Your task to perform on an android device: toggle data saver in the chrome app Image 0: 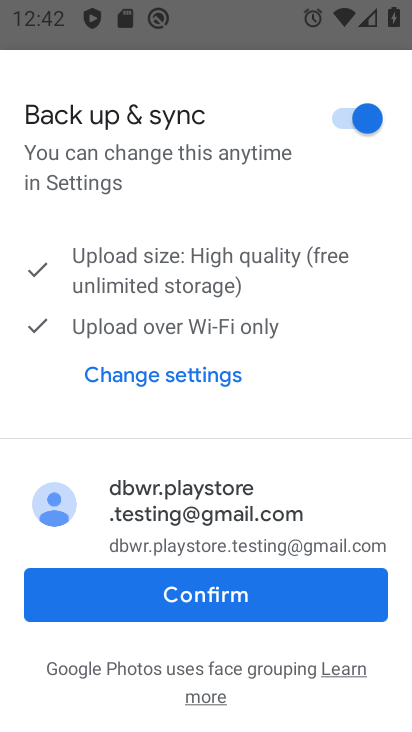
Step 0: press back button
Your task to perform on an android device: toggle data saver in the chrome app Image 1: 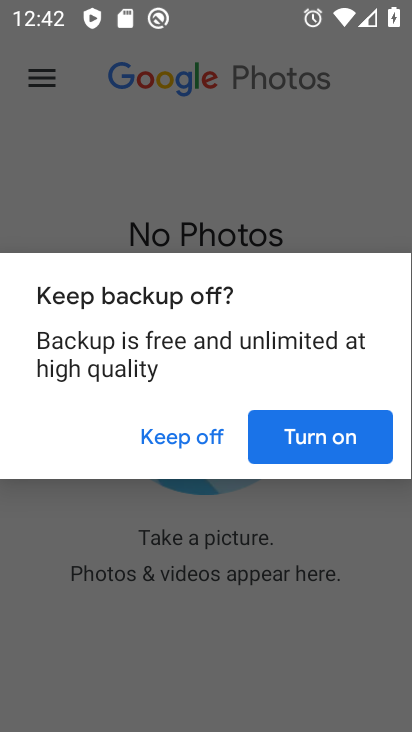
Step 1: click (140, 434)
Your task to perform on an android device: toggle data saver in the chrome app Image 2: 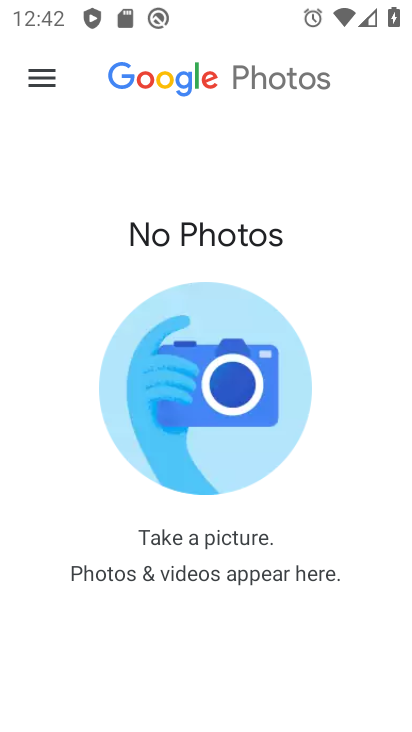
Step 2: press back button
Your task to perform on an android device: toggle data saver in the chrome app Image 3: 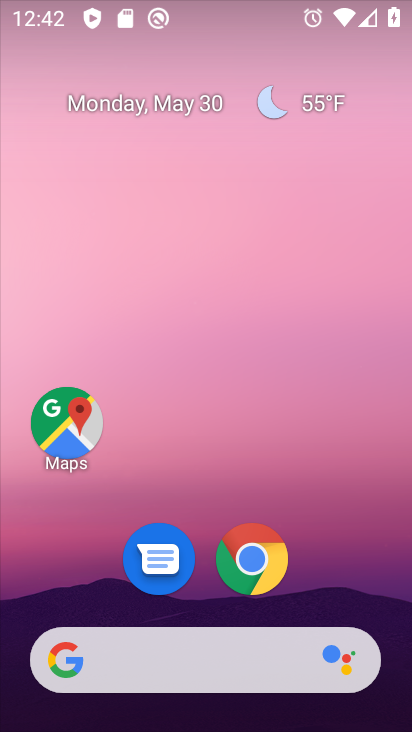
Step 3: click (261, 545)
Your task to perform on an android device: toggle data saver in the chrome app Image 4: 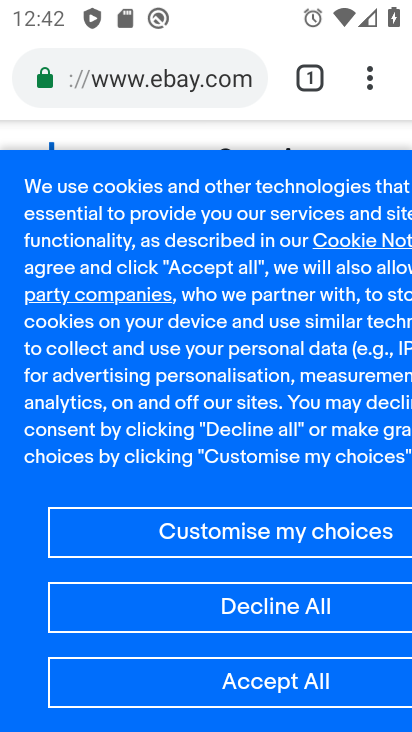
Step 4: drag from (365, 71) to (98, 615)
Your task to perform on an android device: toggle data saver in the chrome app Image 5: 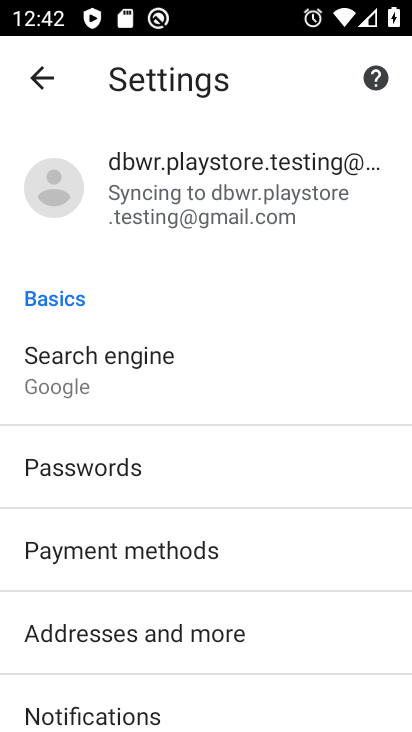
Step 5: drag from (145, 653) to (306, 107)
Your task to perform on an android device: toggle data saver in the chrome app Image 6: 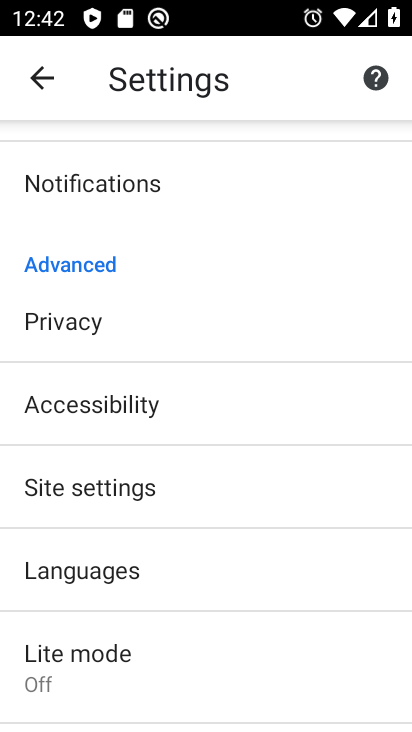
Step 6: click (66, 678)
Your task to perform on an android device: toggle data saver in the chrome app Image 7: 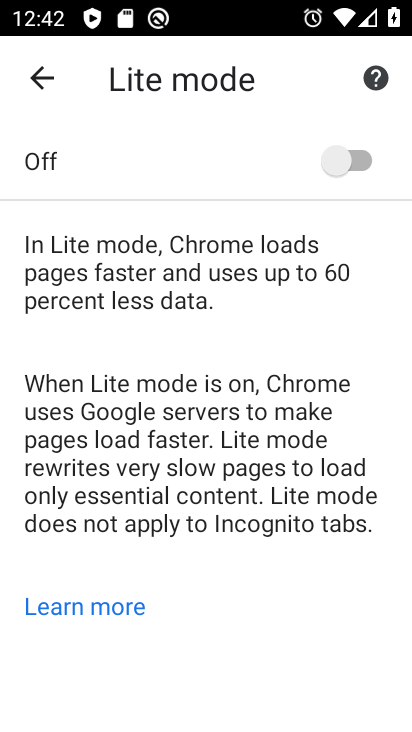
Step 7: click (337, 166)
Your task to perform on an android device: toggle data saver in the chrome app Image 8: 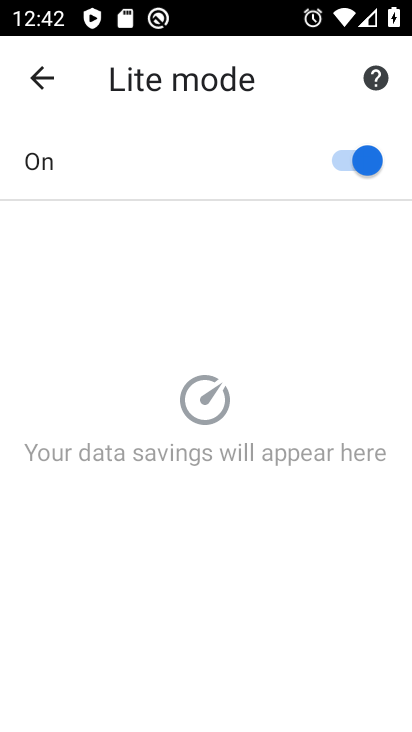
Step 8: task complete